Your task to perform on an android device: When is my next meeting? Image 0: 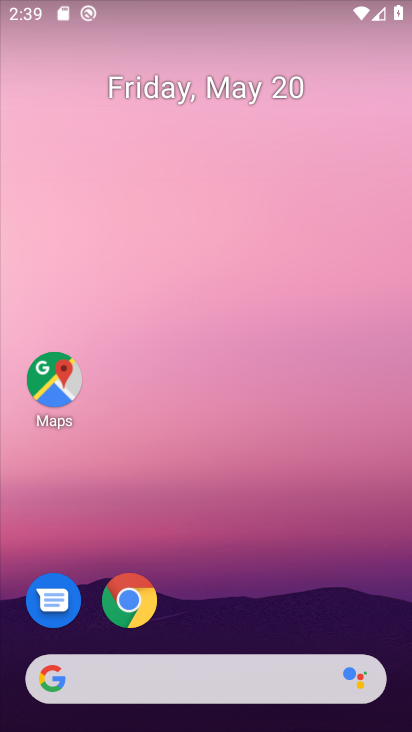
Step 0: drag from (377, 621) to (362, 285)
Your task to perform on an android device: When is my next meeting? Image 1: 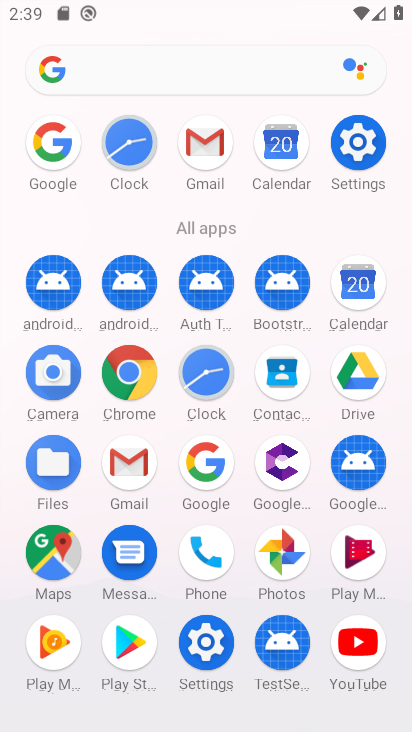
Step 1: click (375, 314)
Your task to perform on an android device: When is my next meeting? Image 2: 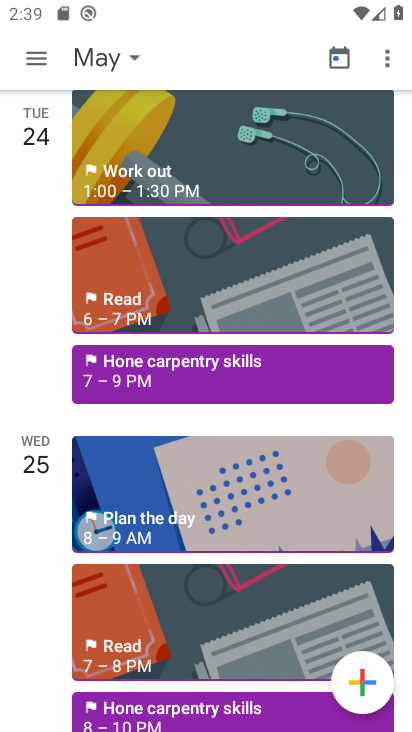
Step 2: click (220, 147)
Your task to perform on an android device: When is my next meeting? Image 3: 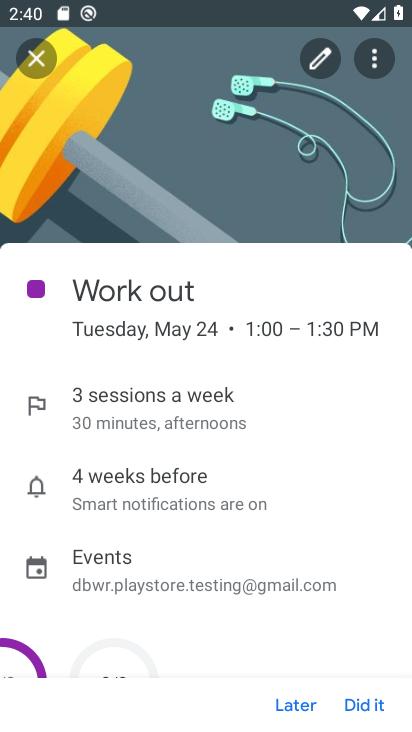
Step 3: task complete